Your task to perform on an android device: delete the emails in spam in the gmail app Image 0: 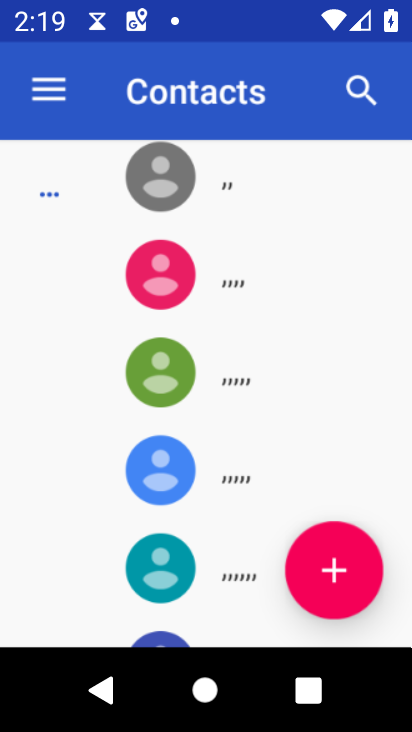
Step 0: press home button
Your task to perform on an android device: delete the emails in spam in the gmail app Image 1: 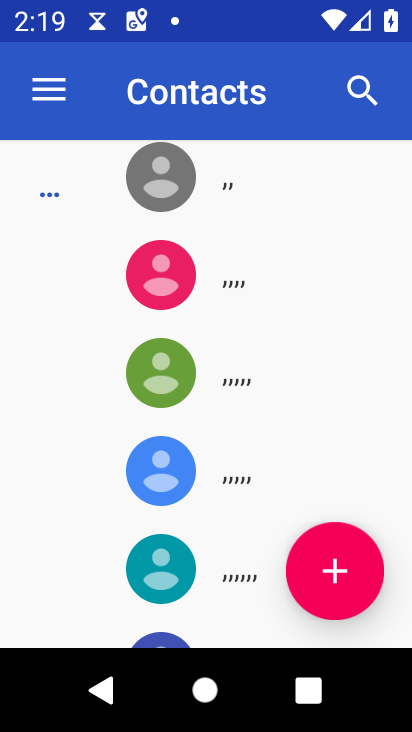
Step 1: press home button
Your task to perform on an android device: delete the emails in spam in the gmail app Image 2: 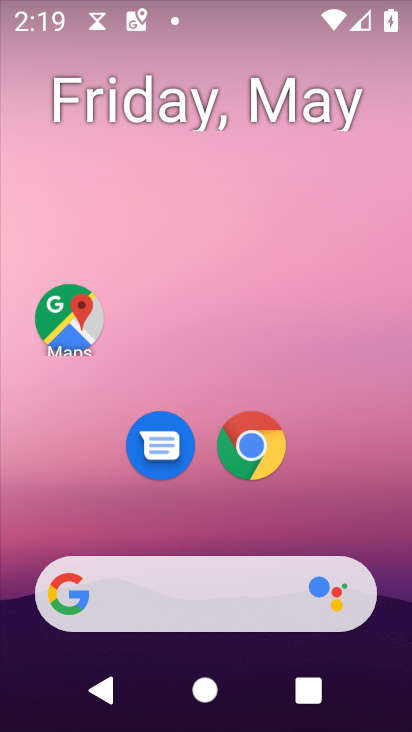
Step 2: drag from (202, 535) to (297, 68)
Your task to perform on an android device: delete the emails in spam in the gmail app Image 3: 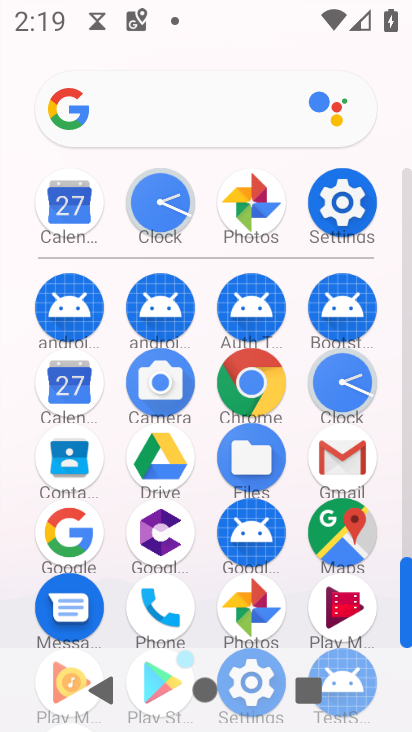
Step 3: click (339, 446)
Your task to perform on an android device: delete the emails in spam in the gmail app Image 4: 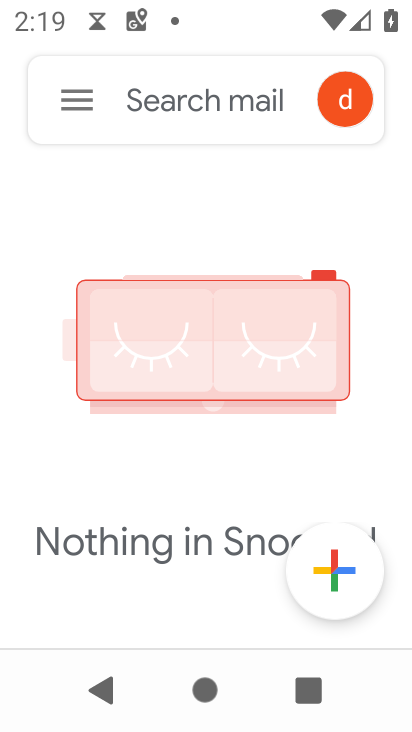
Step 4: click (76, 86)
Your task to perform on an android device: delete the emails in spam in the gmail app Image 5: 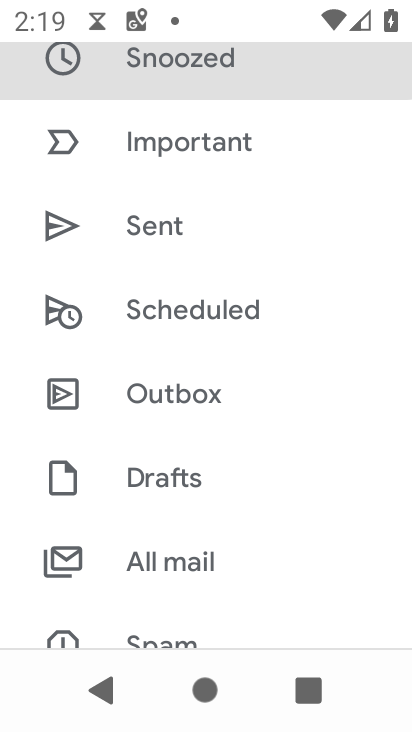
Step 5: drag from (144, 554) to (226, 239)
Your task to perform on an android device: delete the emails in spam in the gmail app Image 6: 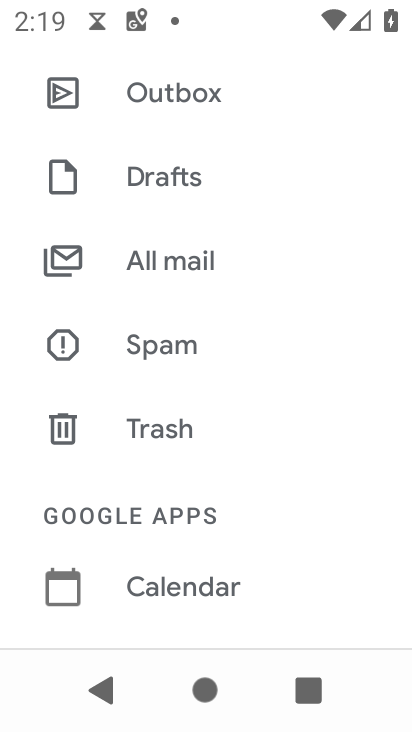
Step 6: click (106, 334)
Your task to perform on an android device: delete the emails in spam in the gmail app Image 7: 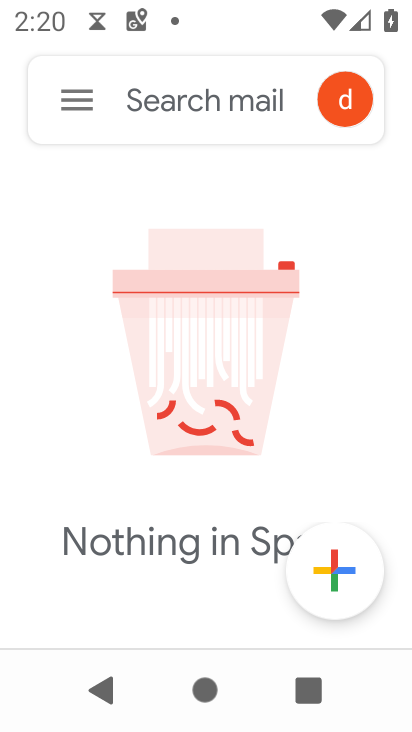
Step 7: task complete